Your task to perform on an android device: Go to eBay Image 0: 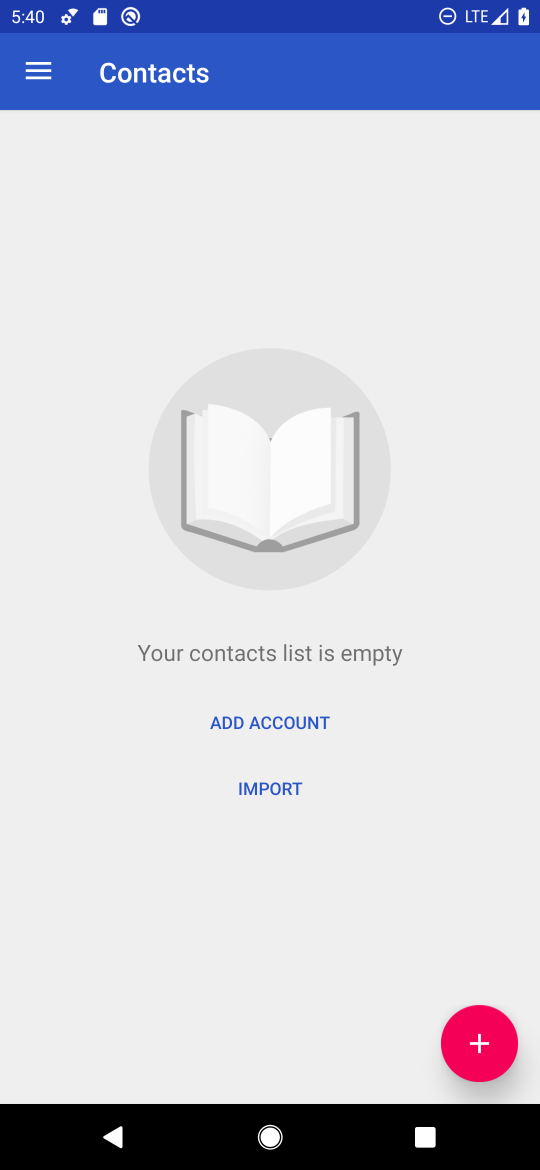
Step 0: press home button
Your task to perform on an android device: Go to eBay Image 1: 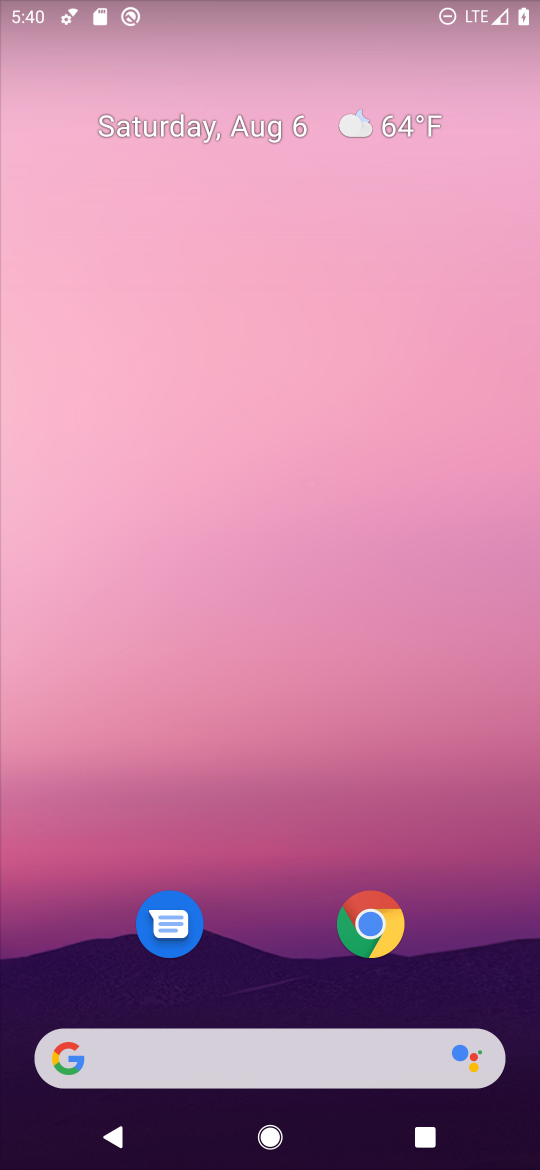
Step 1: click (369, 919)
Your task to perform on an android device: Go to eBay Image 2: 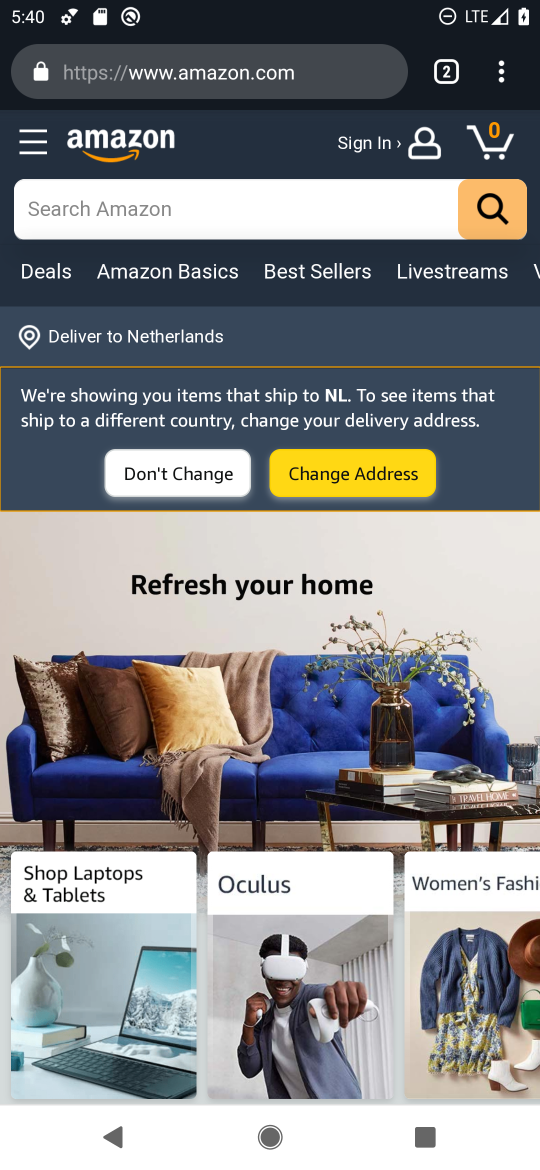
Step 2: click (506, 71)
Your task to perform on an android device: Go to eBay Image 3: 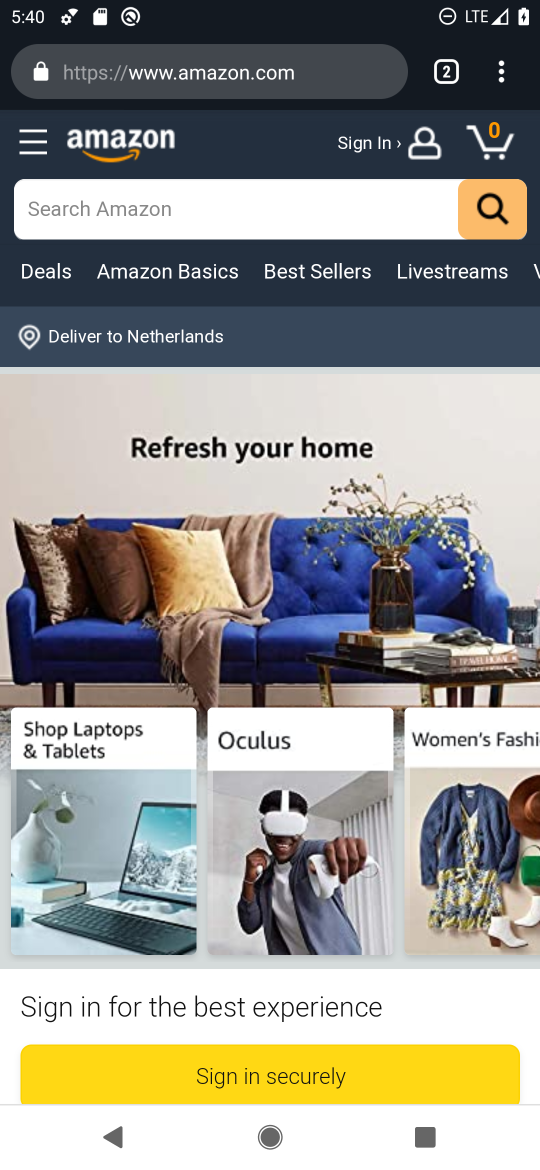
Step 3: click (494, 74)
Your task to perform on an android device: Go to eBay Image 4: 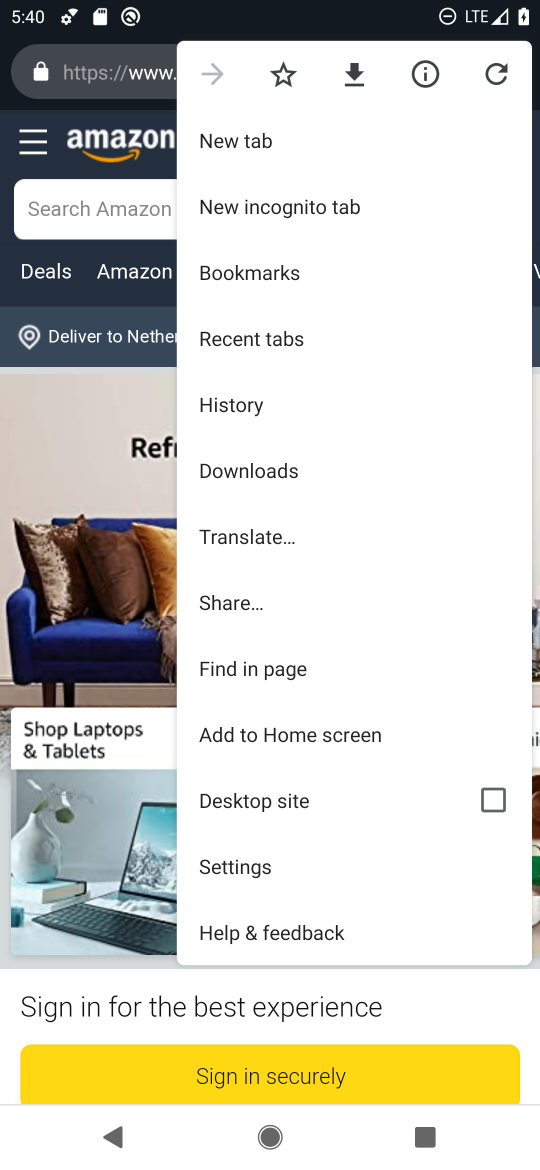
Step 4: click (241, 135)
Your task to perform on an android device: Go to eBay Image 5: 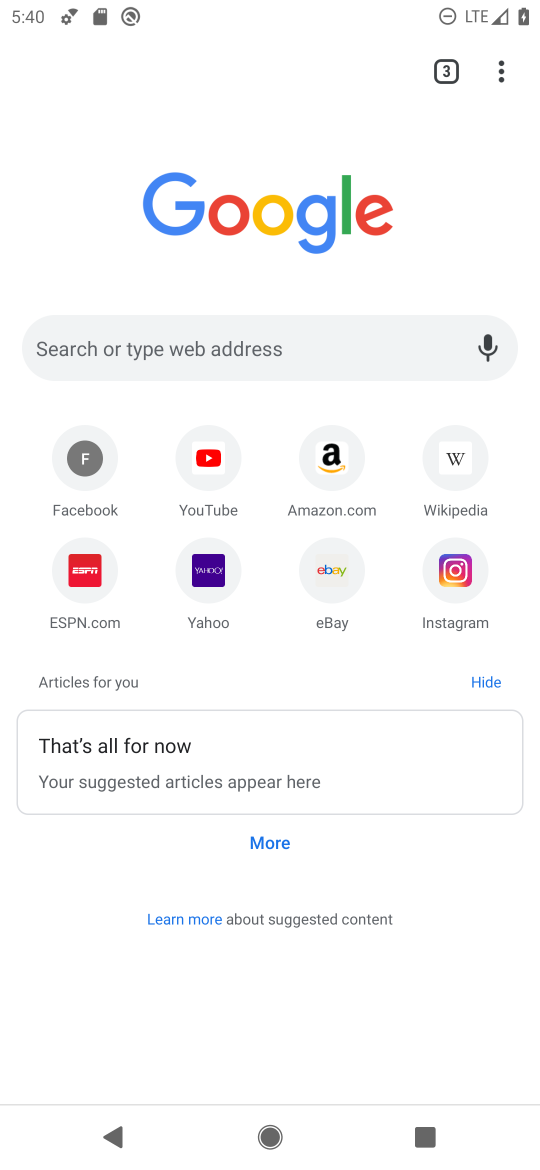
Step 5: click (335, 578)
Your task to perform on an android device: Go to eBay Image 6: 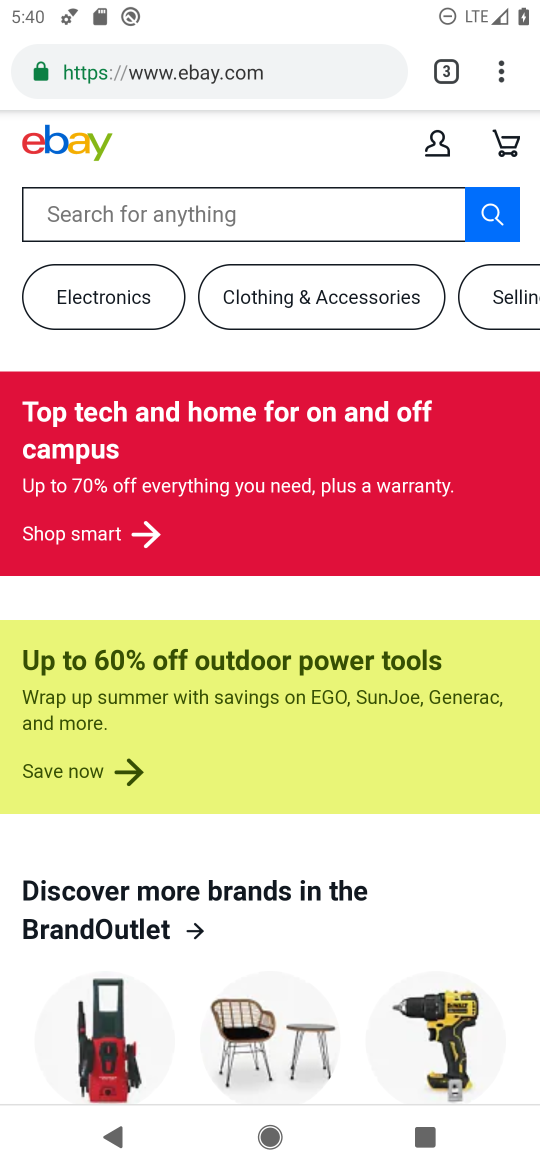
Step 6: task complete